Your task to perform on an android device: change your default location settings in chrome Image 0: 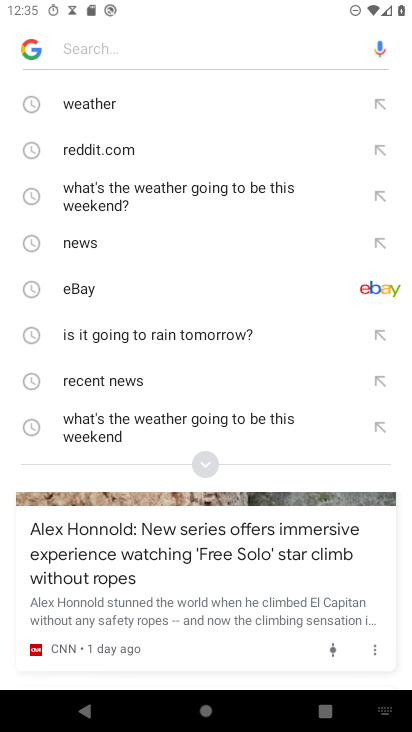
Step 0: press home button
Your task to perform on an android device: change your default location settings in chrome Image 1: 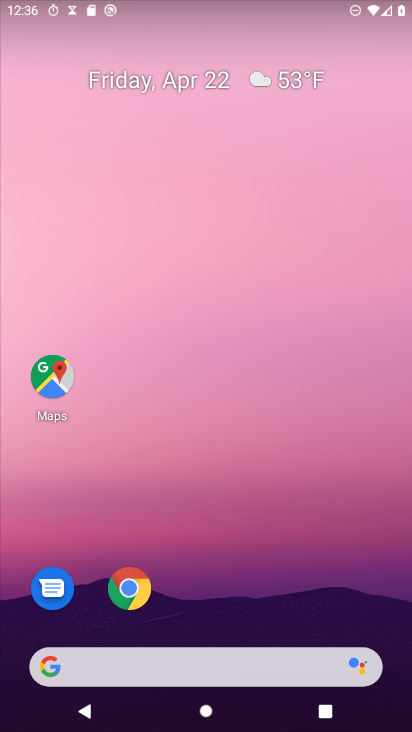
Step 1: drag from (234, 604) to (239, 128)
Your task to perform on an android device: change your default location settings in chrome Image 2: 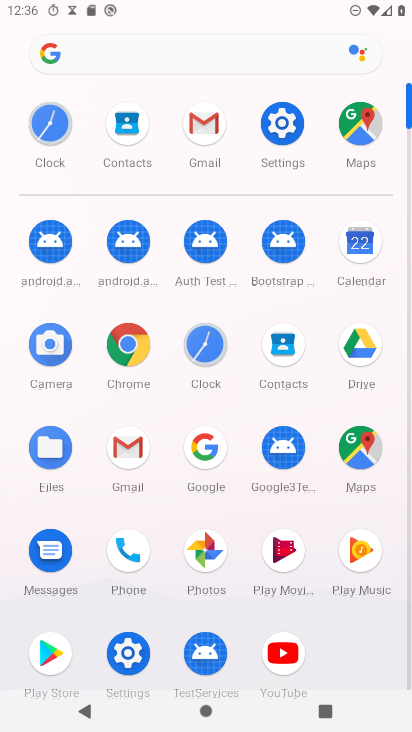
Step 2: click (120, 352)
Your task to perform on an android device: change your default location settings in chrome Image 3: 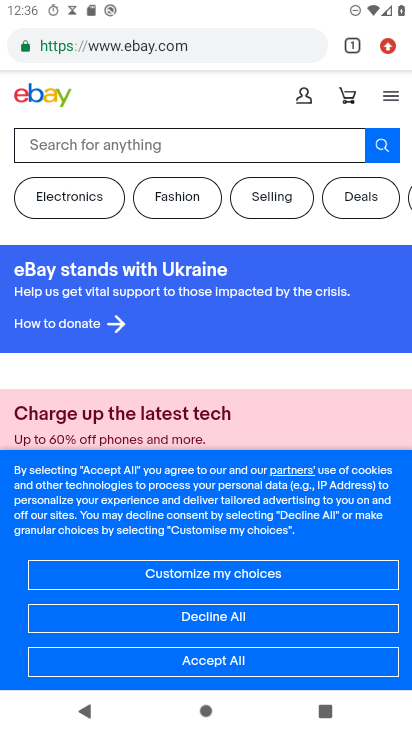
Step 3: click (396, 40)
Your task to perform on an android device: change your default location settings in chrome Image 4: 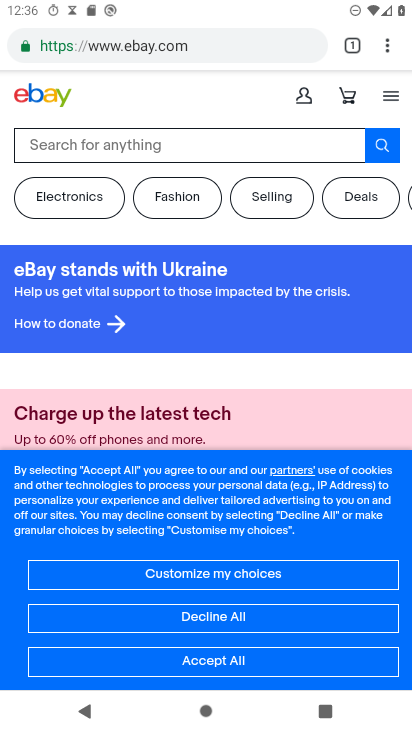
Step 4: click (396, 40)
Your task to perform on an android device: change your default location settings in chrome Image 5: 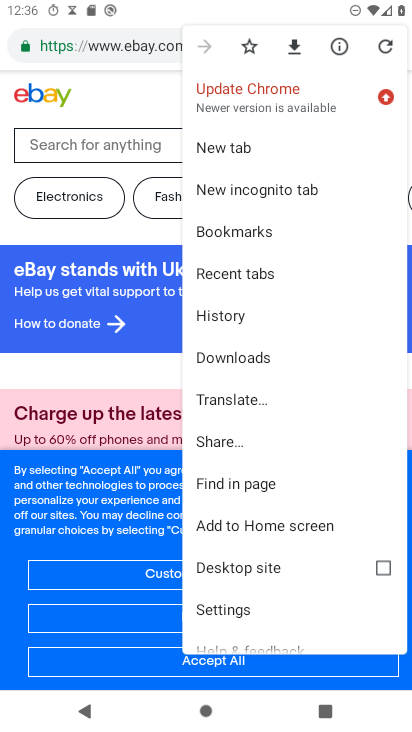
Step 5: click (248, 607)
Your task to perform on an android device: change your default location settings in chrome Image 6: 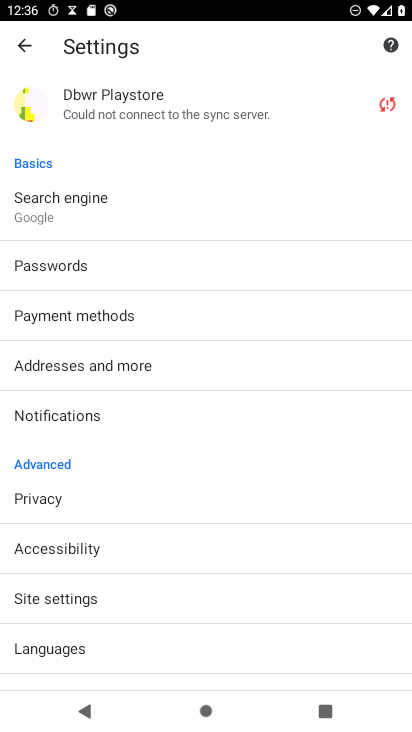
Step 6: click (101, 602)
Your task to perform on an android device: change your default location settings in chrome Image 7: 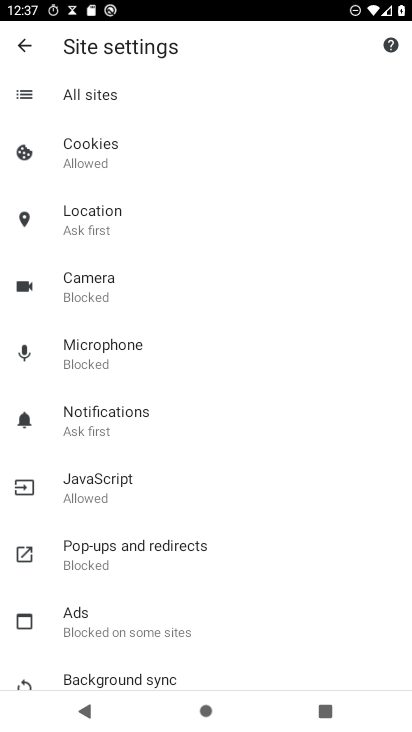
Step 7: click (115, 212)
Your task to perform on an android device: change your default location settings in chrome Image 8: 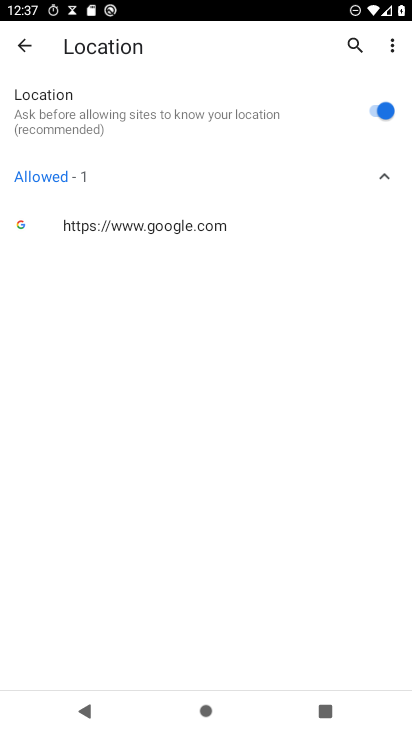
Step 8: click (386, 100)
Your task to perform on an android device: change your default location settings in chrome Image 9: 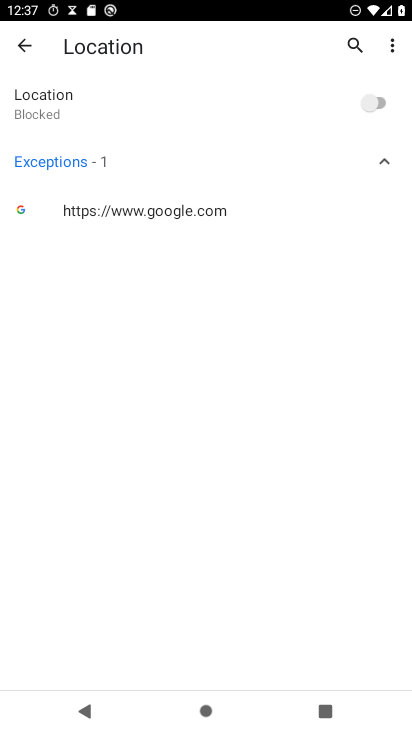
Step 9: task complete